Your task to perform on an android device: Go to Google Image 0: 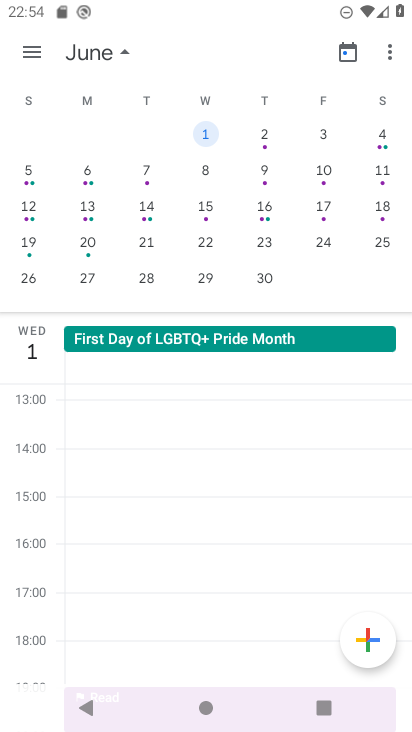
Step 0: press home button
Your task to perform on an android device: Go to Google Image 1: 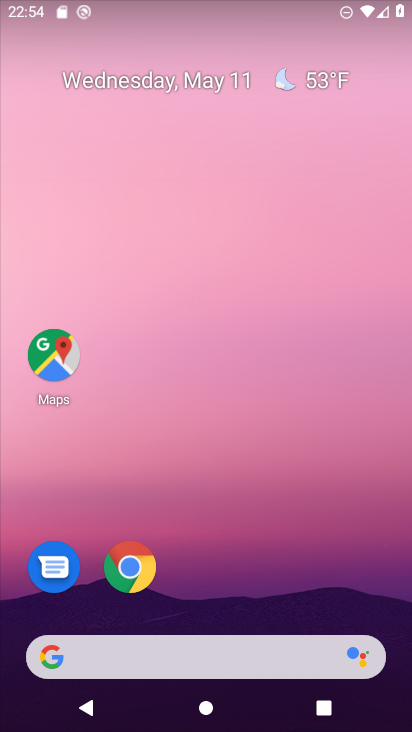
Step 1: drag from (172, 676) to (234, 62)
Your task to perform on an android device: Go to Google Image 2: 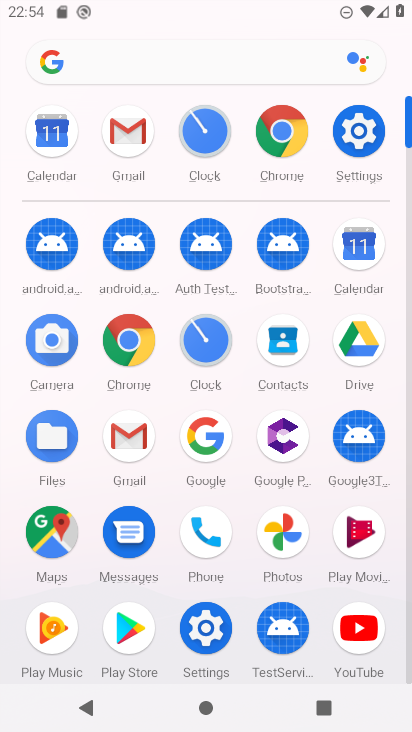
Step 2: click (203, 442)
Your task to perform on an android device: Go to Google Image 3: 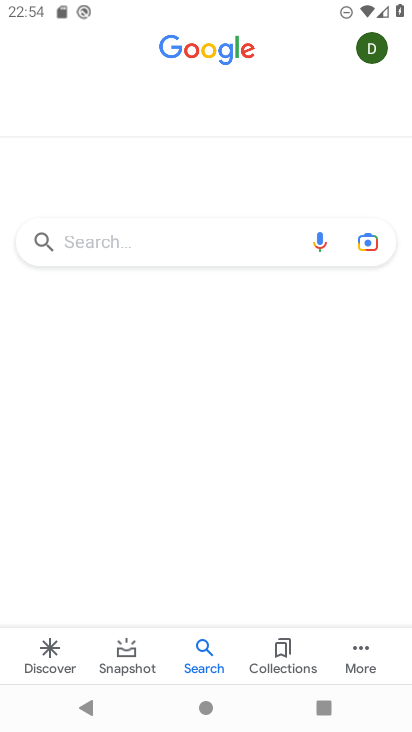
Step 3: task complete